Your task to perform on an android device: turn on airplane mode Image 0: 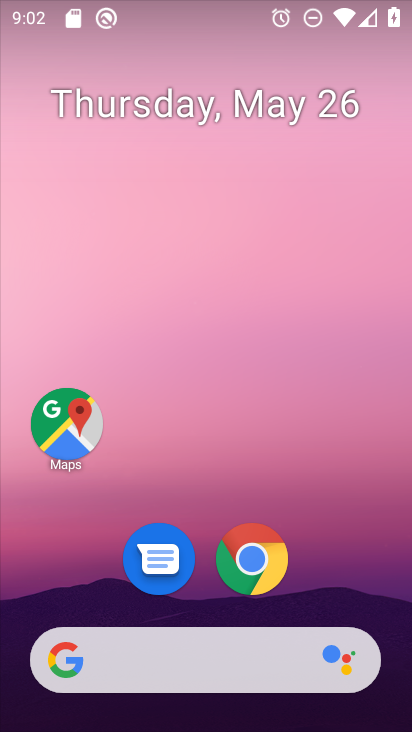
Step 0: drag from (205, 595) to (222, 103)
Your task to perform on an android device: turn on airplane mode Image 1: 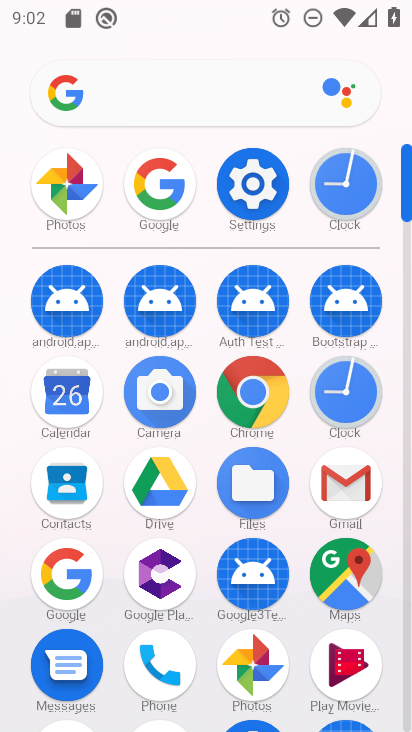
Step 1: click (255, 178)
Your task to perform on an android device: turn on airplane mode Image 2: 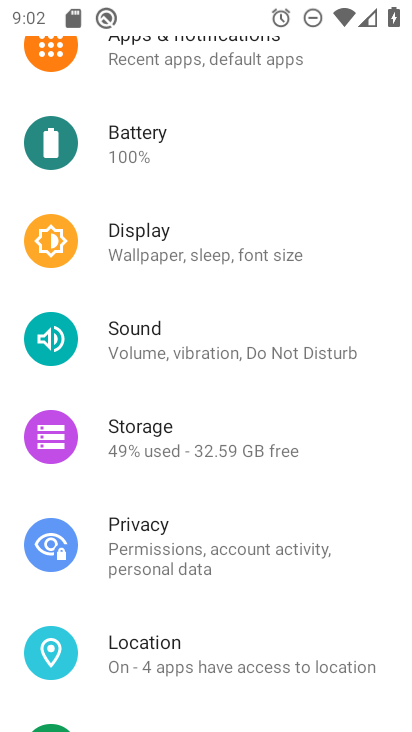
Step 2: drag from (250, 128) to (300, 614)
Your task to perform on an android device: turn on airplane mode Image 3: 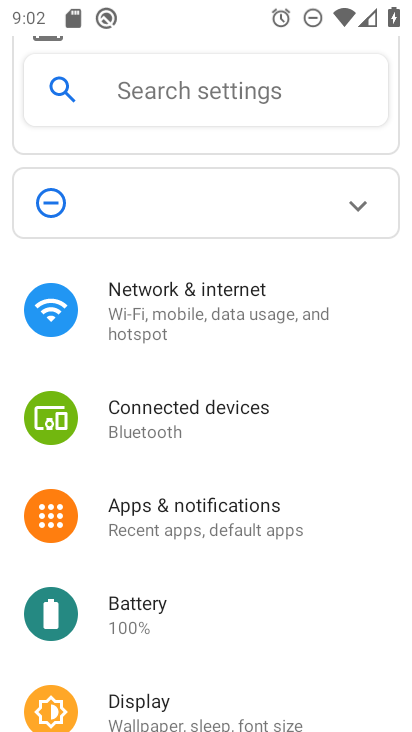
Step 3: click (211, 303)
Your task to perform on an android device: turn on airplane mode Image 4: 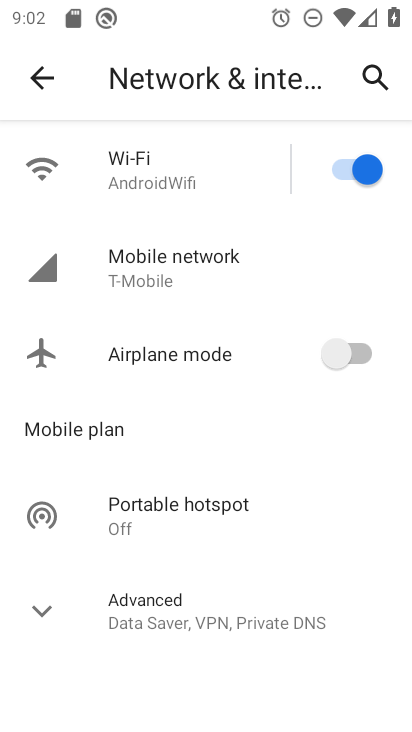
Step 4: click (334, 356)
Your task to perform on an android device: turn on airplane mode Image 5: 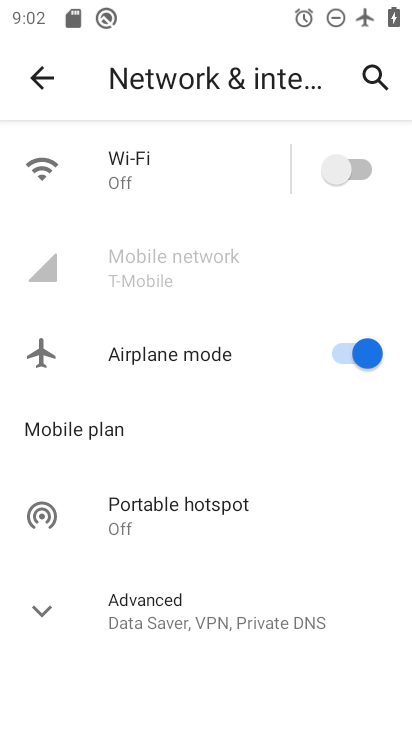
Step 5: task complete